Your task to perform on an android device: uninstall "Google Keep" Image 0: 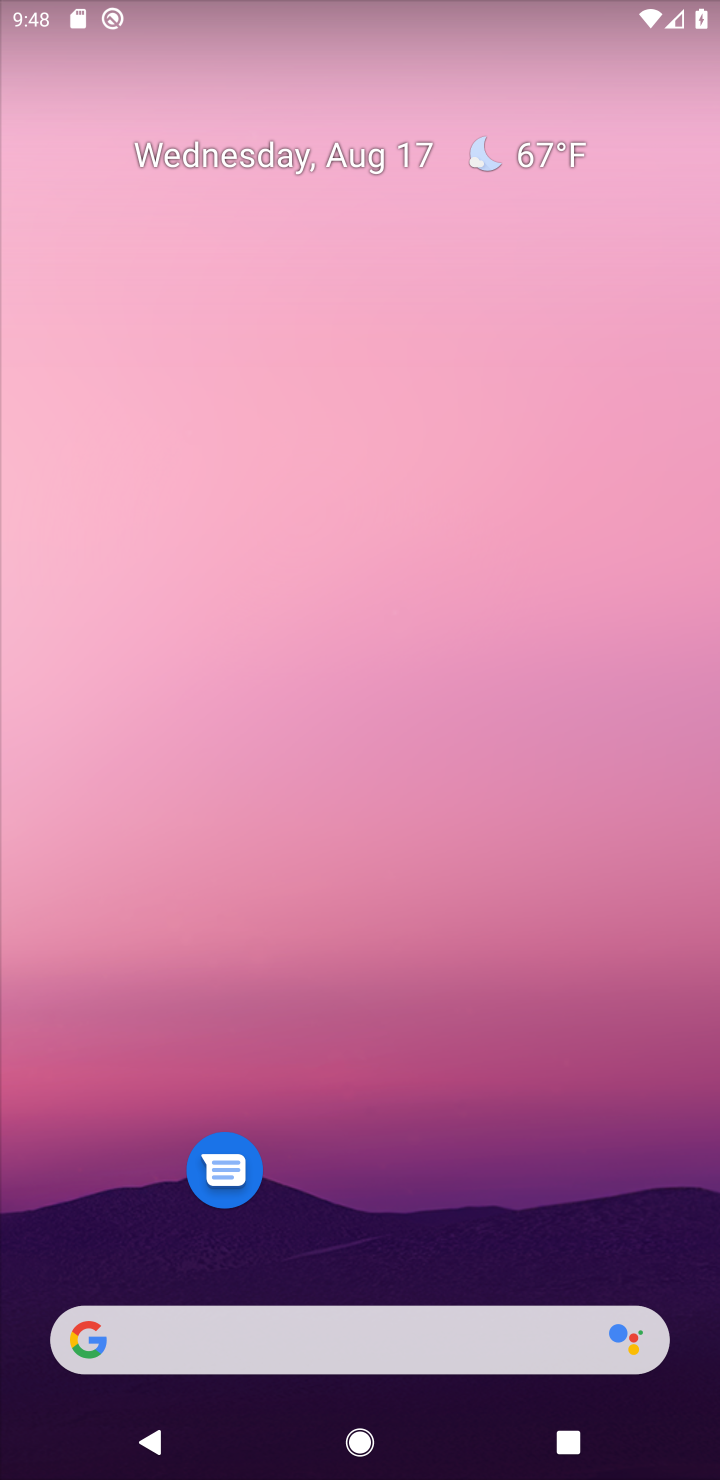
Step 0: drag from (476, 1158) to (476, 76)
Your task to perform on an android device: uninstall "Google Keep" Image 1: 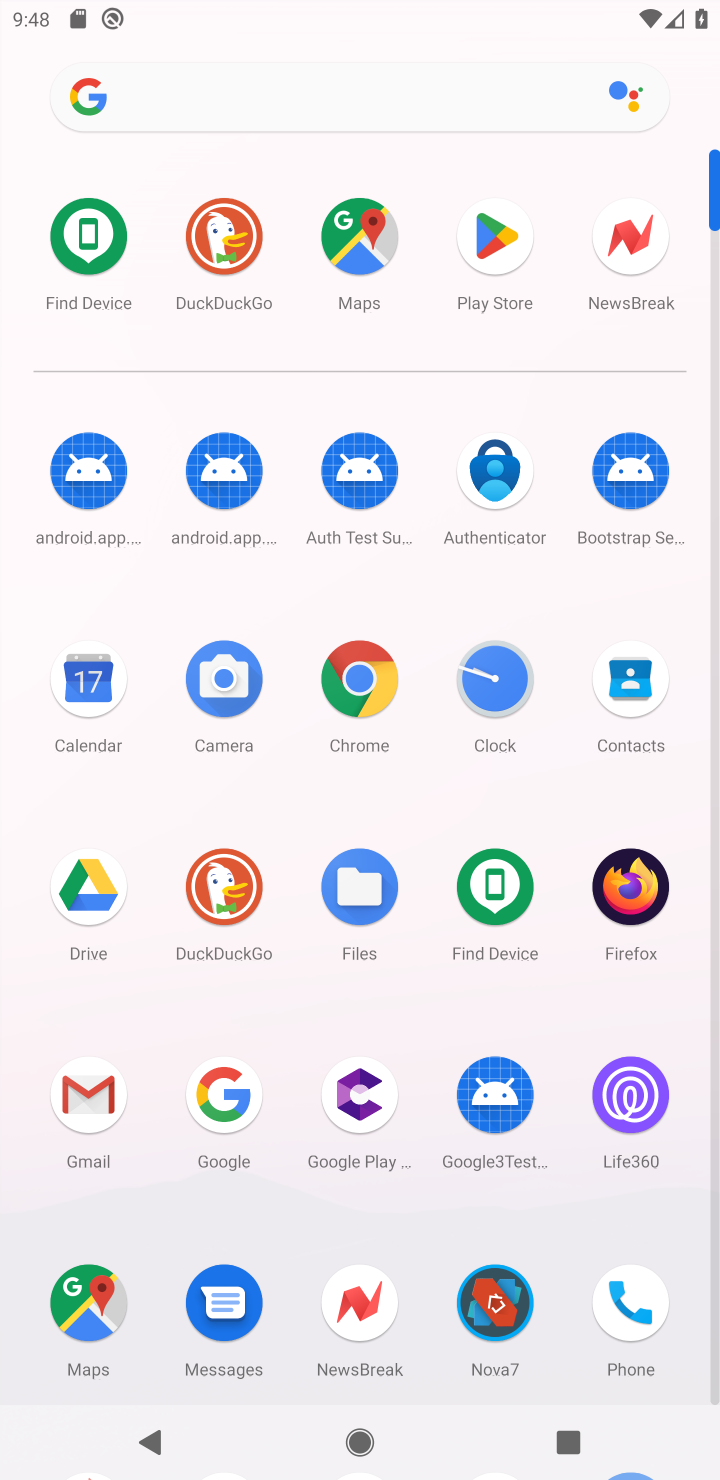
Step 1: click (530, 261)
Your task to perform on an android device: uninstall "Google Keep" Image 2: 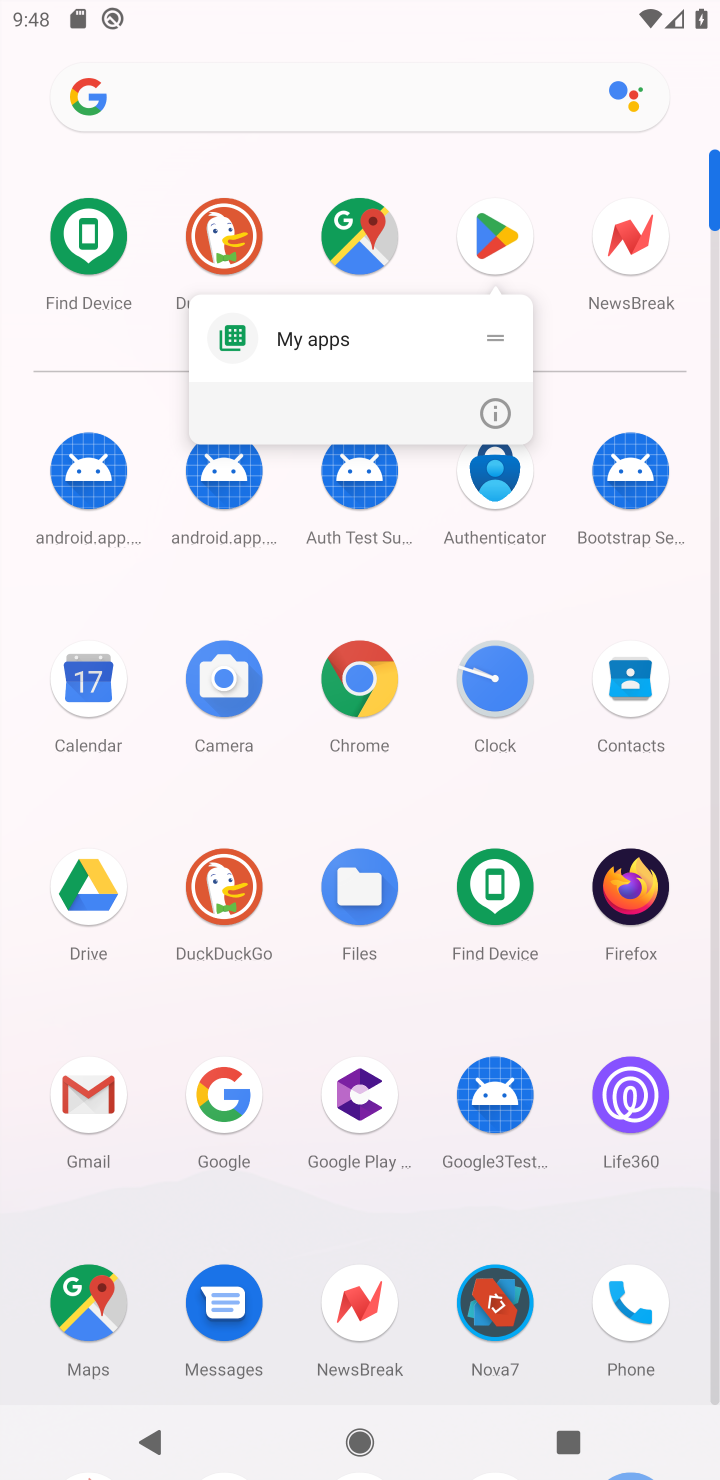
Step 2: click (484, 223)
Your task to perform on an android device: uninstall "Google Keep" Image 3: 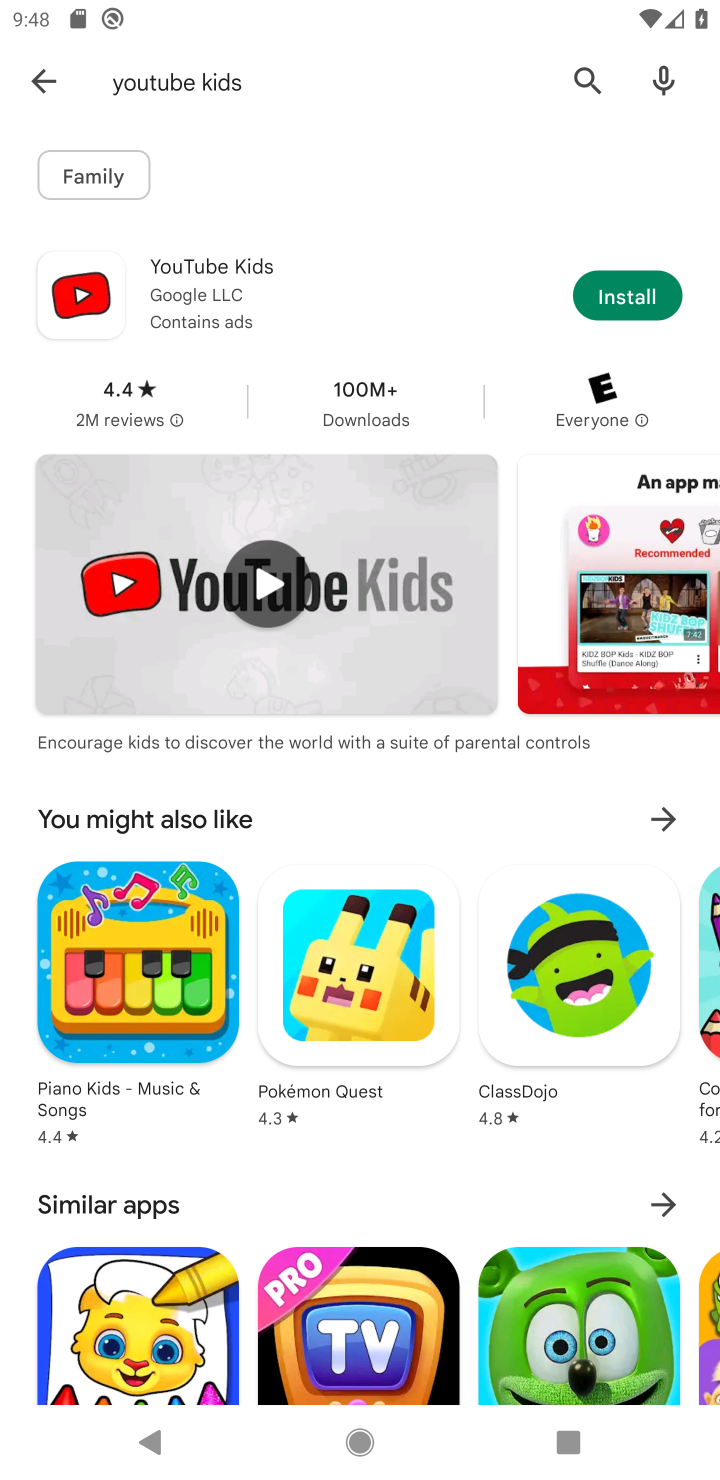
Step 3: click (47, 62)
Your task to perform on an android device: uninstall "Google Keep" Image 4: 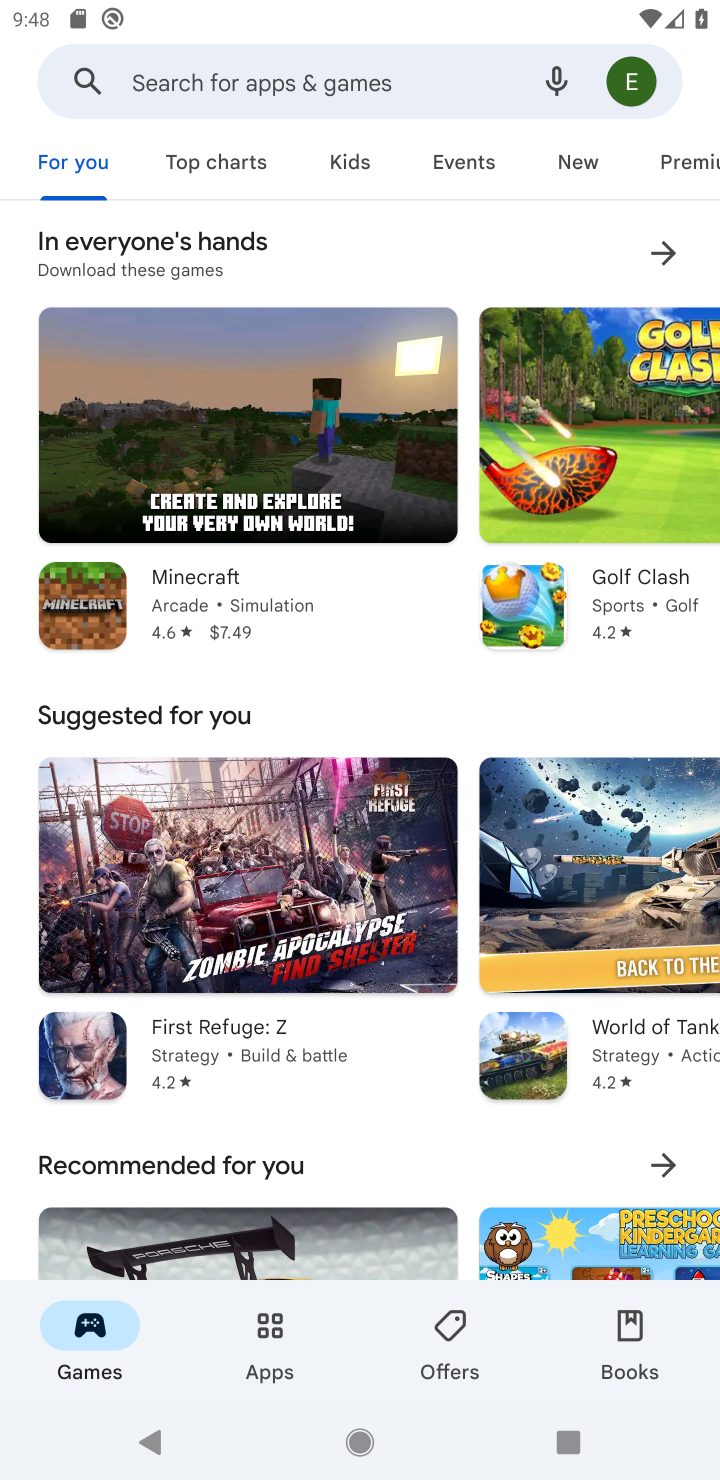
Step 4: click (340, 107)
Your task to perform on an android device: uninstall "Google Keep" Image 5: 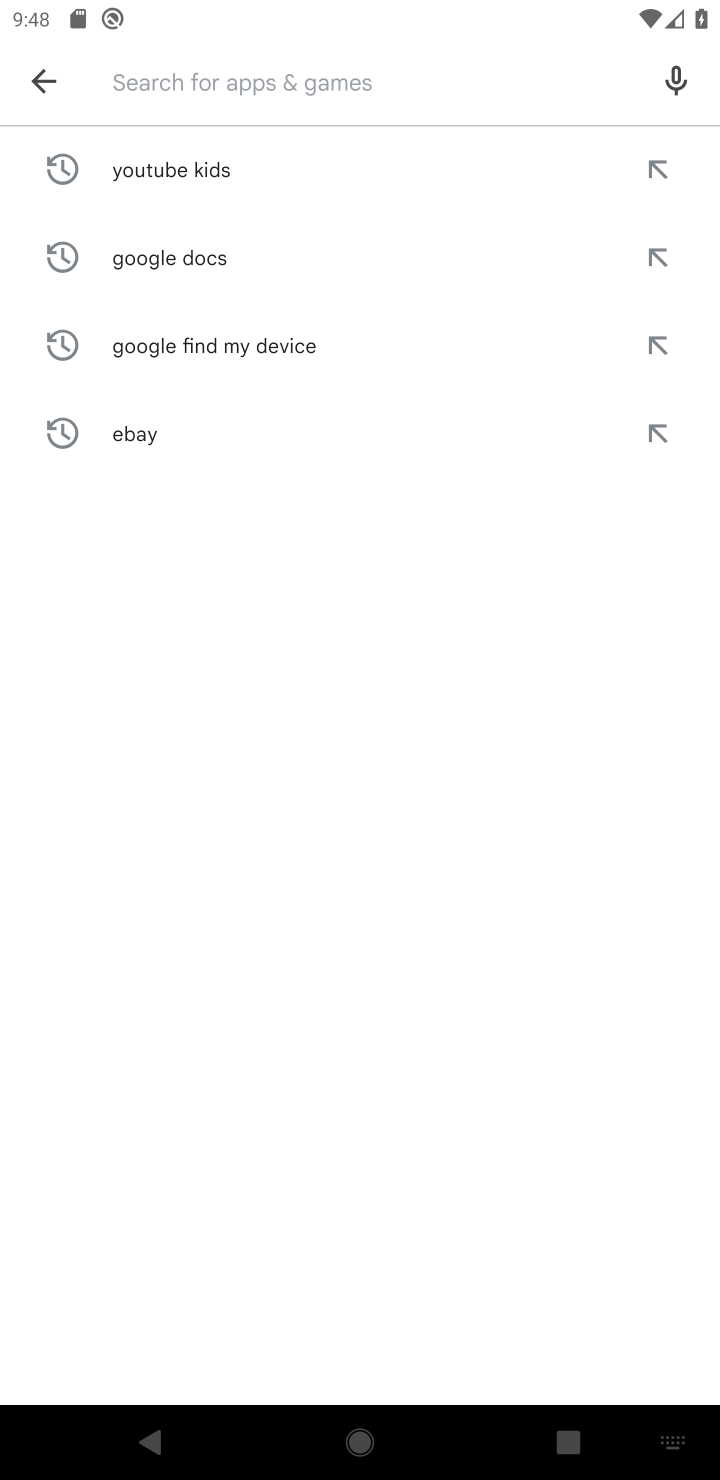
Step 5: type "Google Keep"
Your task to perform on an android device: uninstall "Google Keep" Image 6: 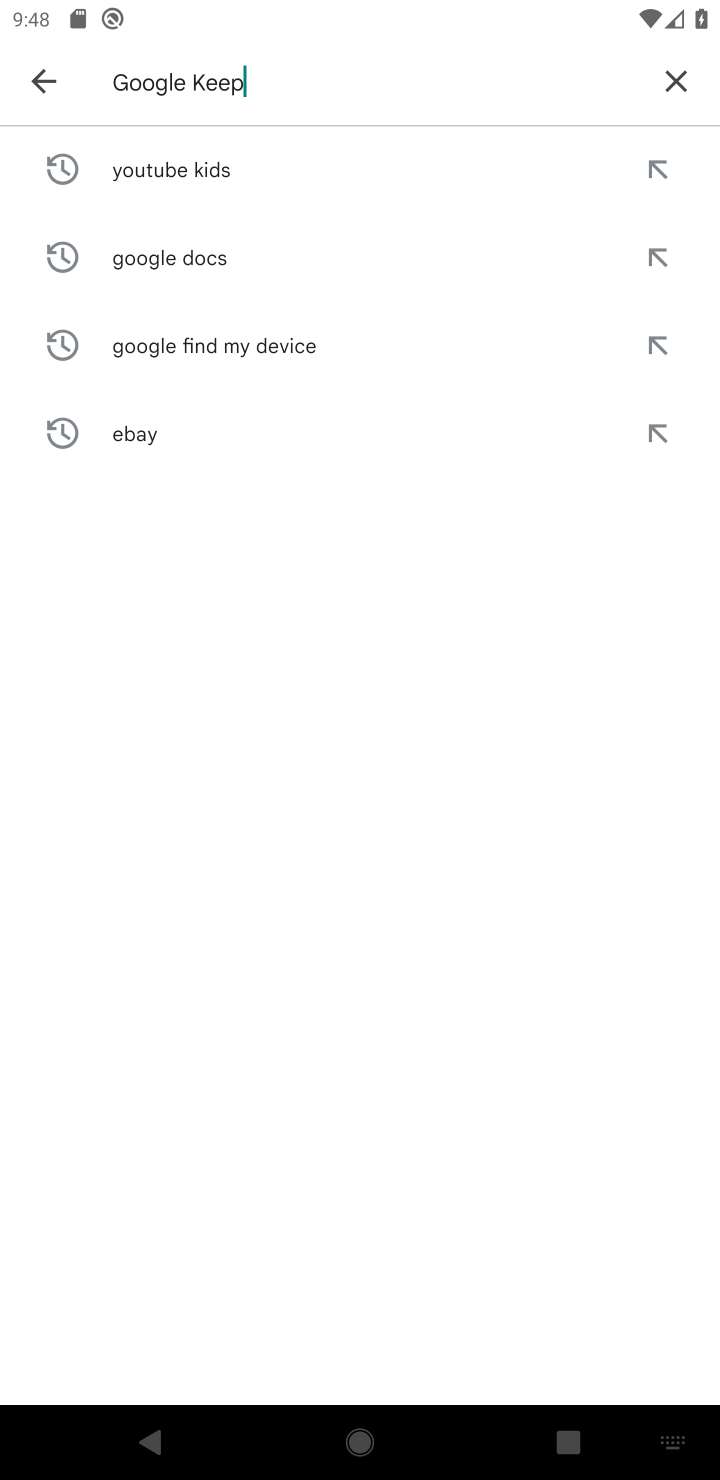
Step 6: type ""
Your task to perform on an android device: uninstall "Google Keep" Image 7: 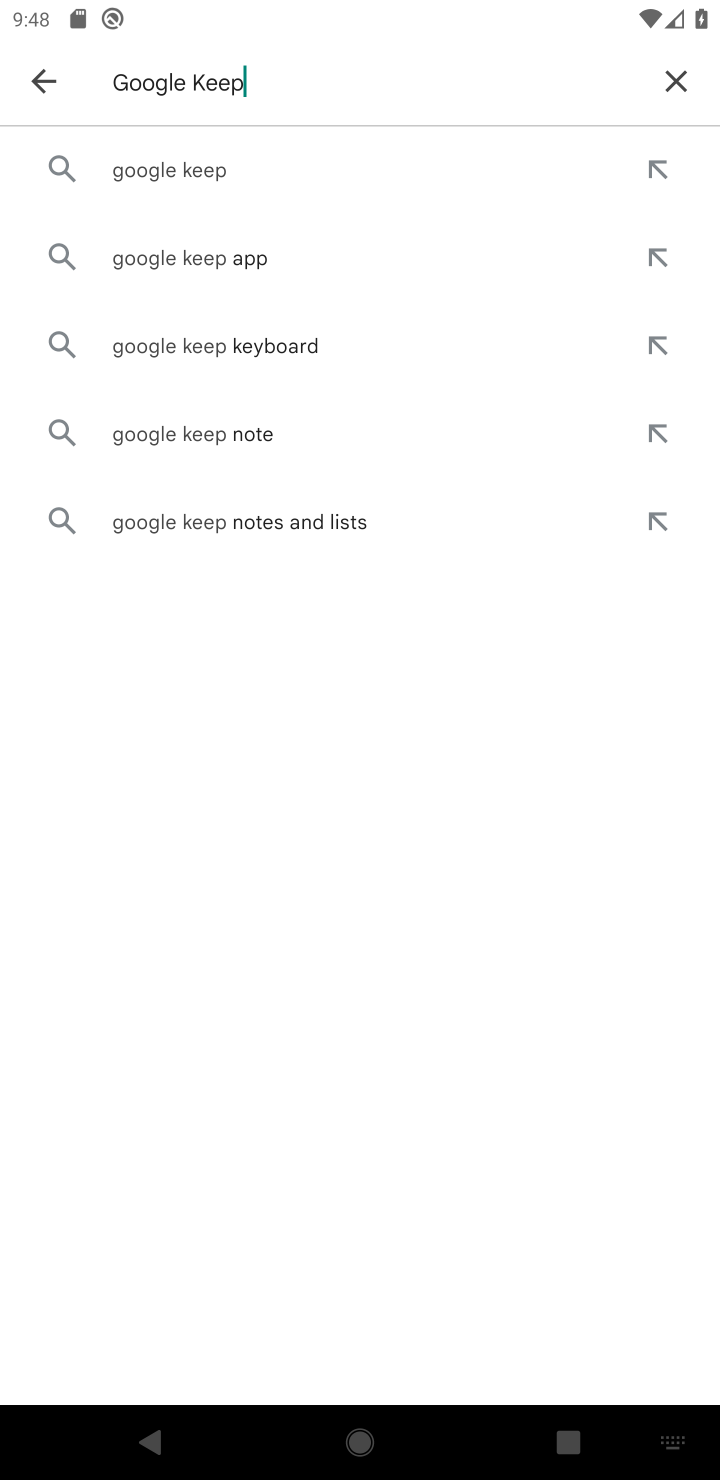
Step 7: click (167, 182)
Your task to perform on an android device: uninstall "Google Keep" Image 8: 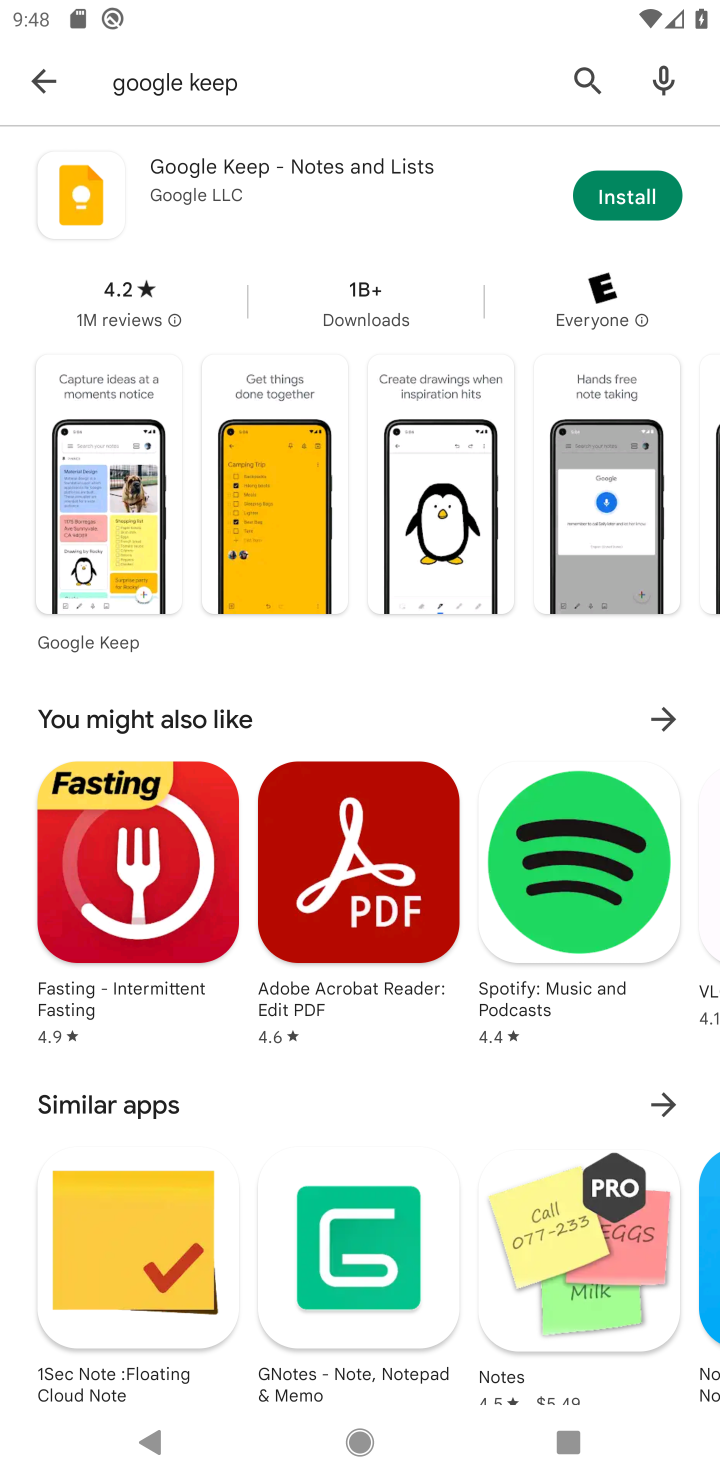
Step 8: task complete